Your task to perform on an android device: Search for Italian restaurants on Maps Image 0: 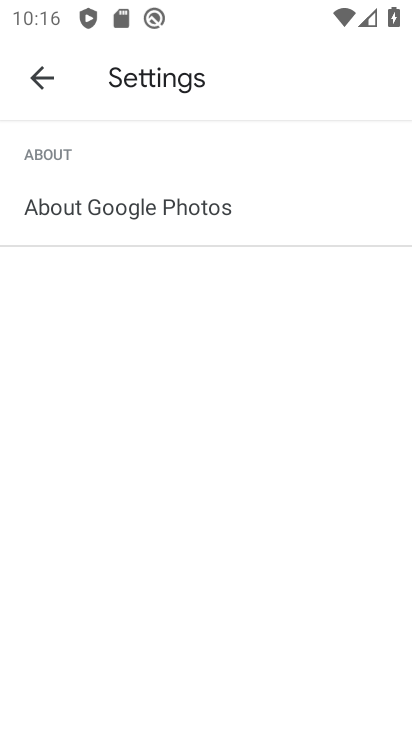
Step 0: press home button
Your task to perform on an android device: Search for Italian restaurants on Maps Image 1: 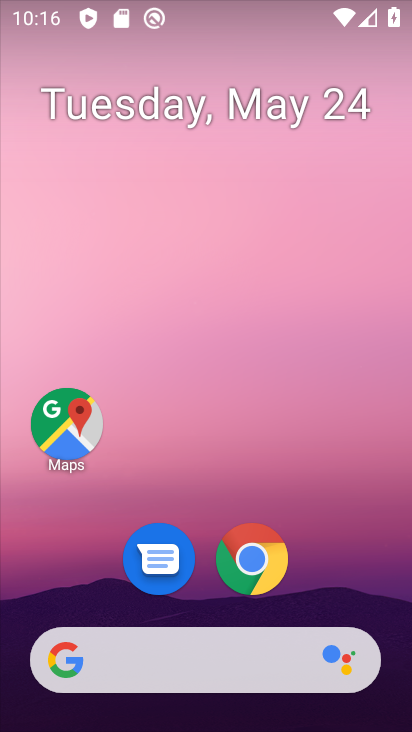
Step 1: click (59, 415)
Your task to perform on an android device: Search for Italian restaurants on Maps Image 2: 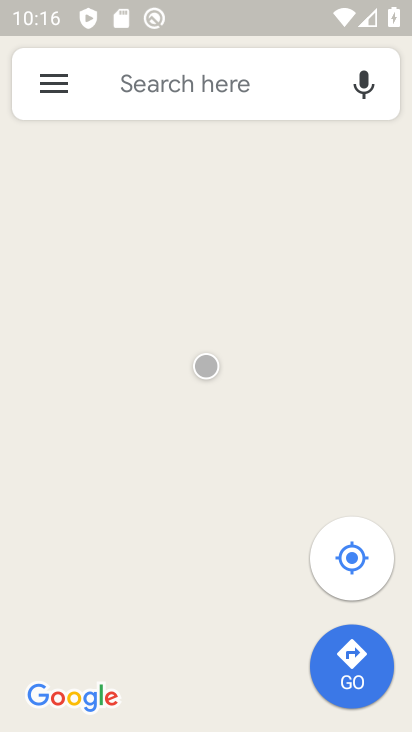
Step 2: click (168, 85)
Your task to perform on an android device: Search for Italian restaurants on Maps Image 3: 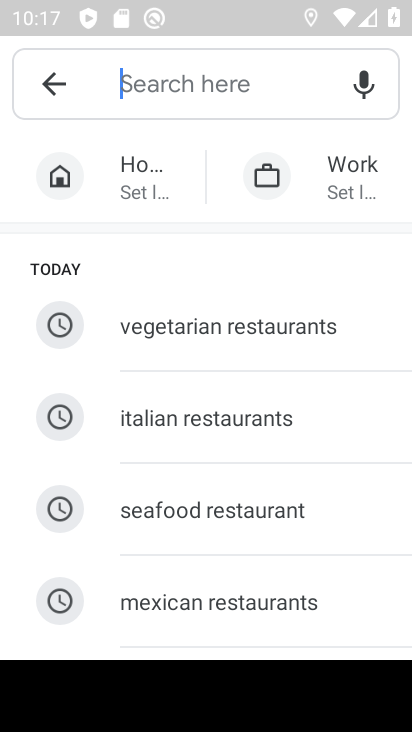
Step 3: click (155, 414)
Your task to perform on an android device: Search for Italian restaurants on Maps Image 4: 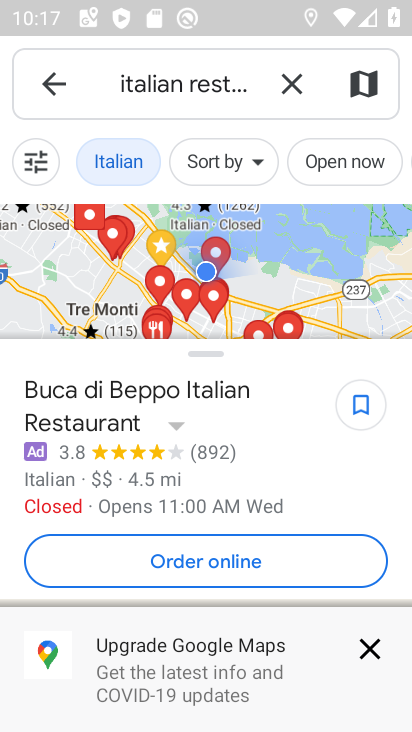
Step 4: task complete